Your task to perform on an android device: find photos in the google photos app Image 0: 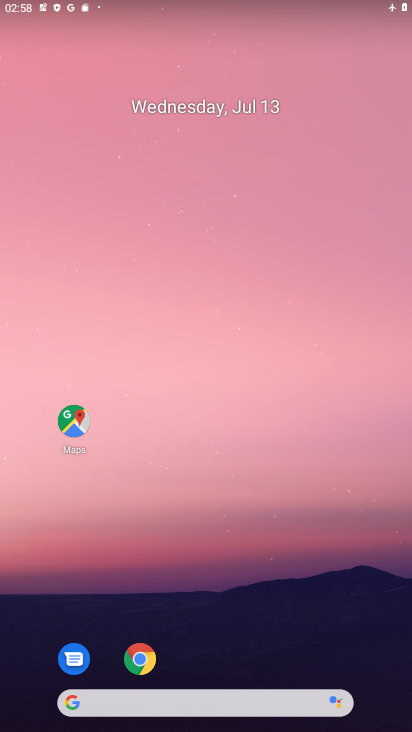
Step 0: drag from (298, 663) to (240, 223)
Your task to perform on an android device: find photos in the google photos app Image 1: 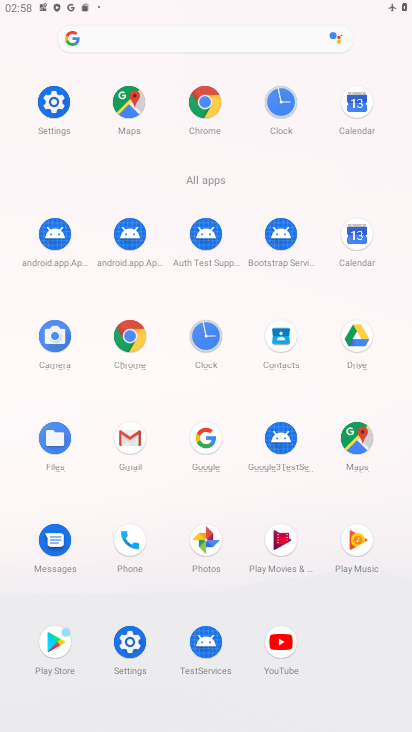
Step 1: click (208, 534)
Your task to perform on an android device: find photos in the google photos app Image 2: 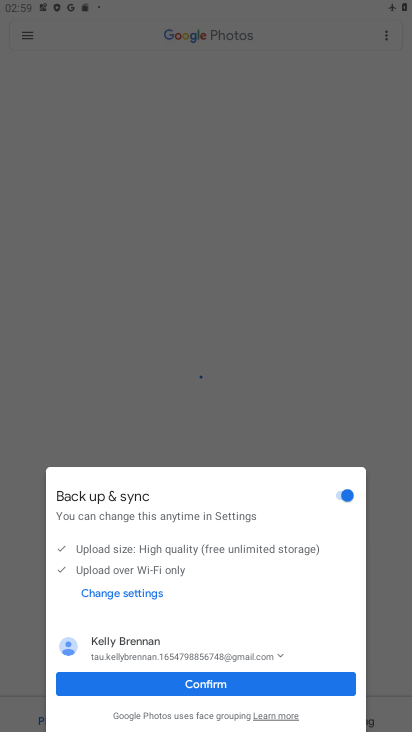
Step 2: click (224, 441)
Your task to perform on an android device: find photos in the google photos app Image 3: 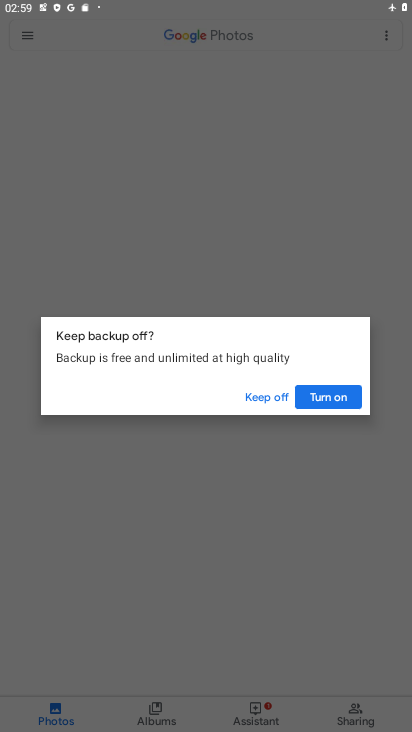
Step 3: click (325, 408)
Your task to perform on an android device: find photos in the google photos app Image 4: 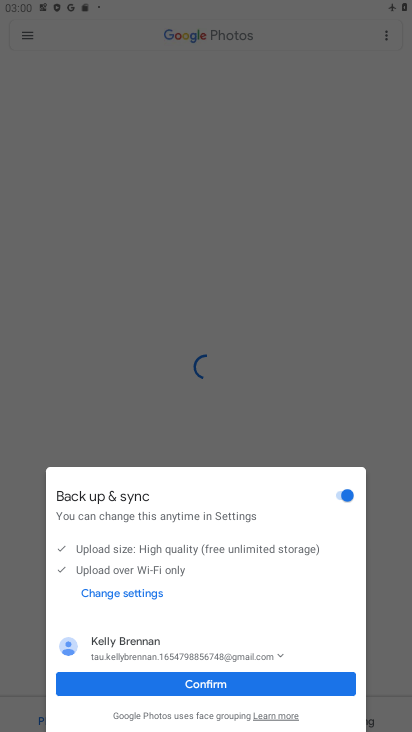
Step 4: click (207, 678)
Your task to perform on an android device: find photos in the google photos app Image 5: 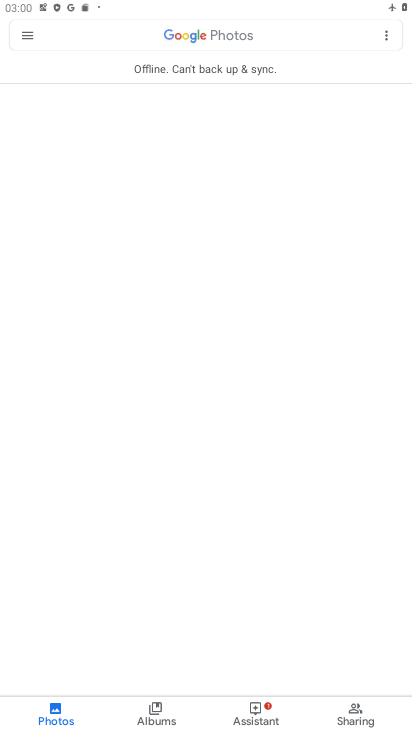
Step 5: task complete